Your task to perform on an android device: remove spam from my inbox in the gmail app Image 0: 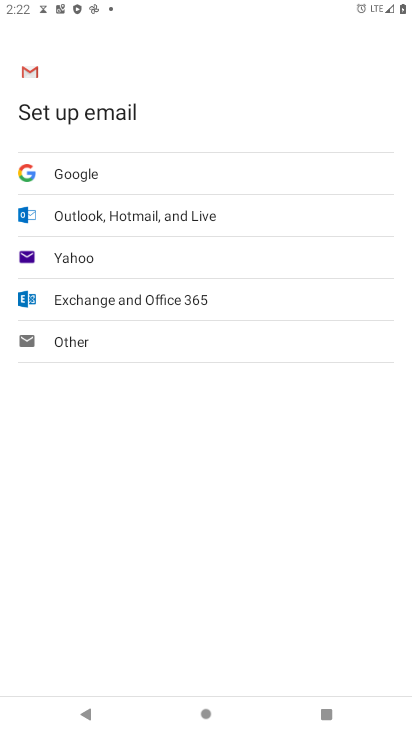
Step 0: press home button
Your task to perform on an android device: remove spam from my inbox in the gmail app Image 1: 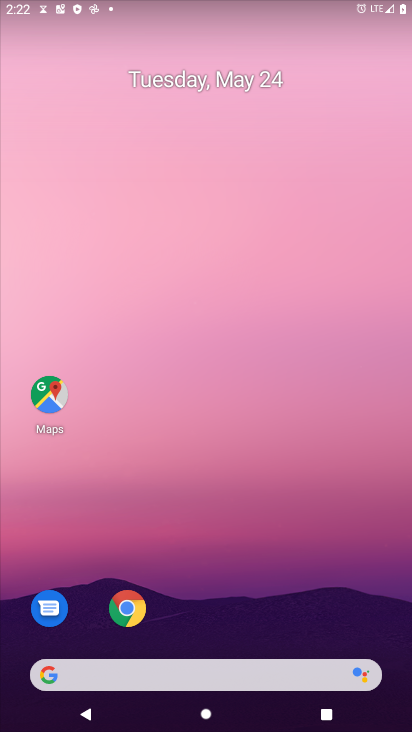
Step 1: drag from (248, 697) to (243, 146)
Your task to perform on an android device: remove spam from my inbox in the gmail app Image 2: 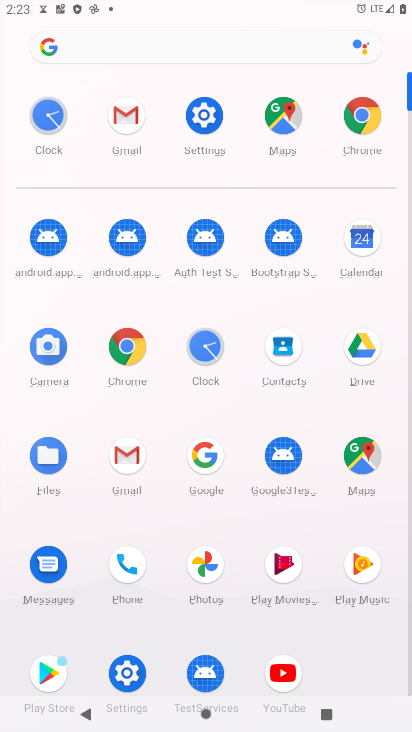
Step 2: click (124, 122)
Your task to perform on an android device: remove spam from my inbox in the gmail app Image 3: 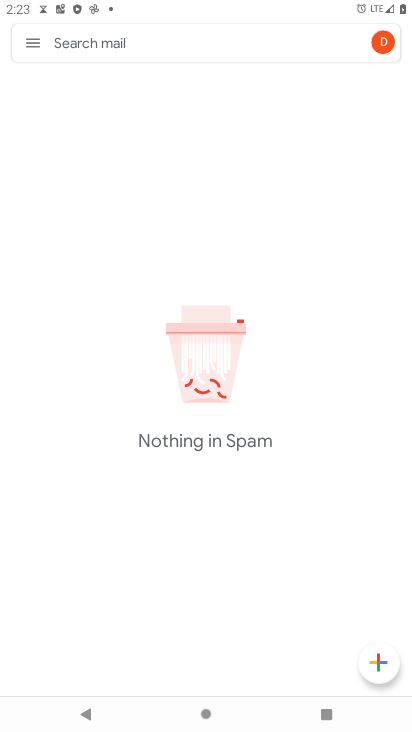
Step 3: click (36, 42)
Your task to perform on an android device: remove spam from my inbox in the gmail app Image 4: 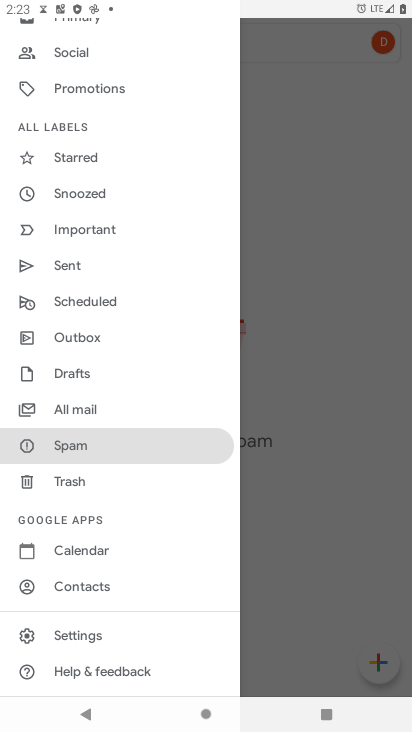
Step 4: click (83, 454)
Your task to perform on an android device: remove spam from my inbox in the gmail app Image 5: 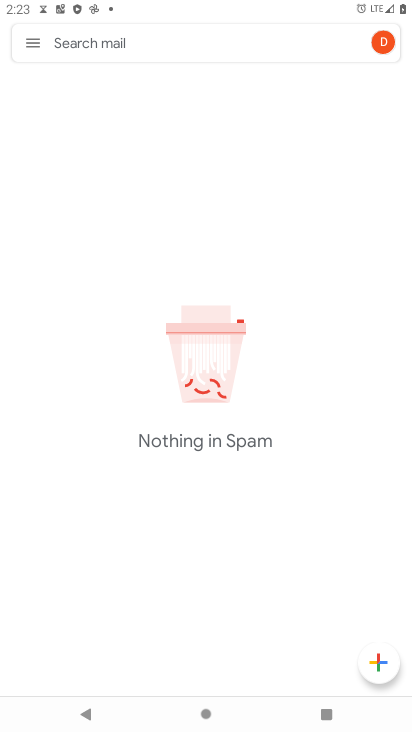
Step 5: task complete